Your task to perform on an android device: toggle airplane mode Image 0: 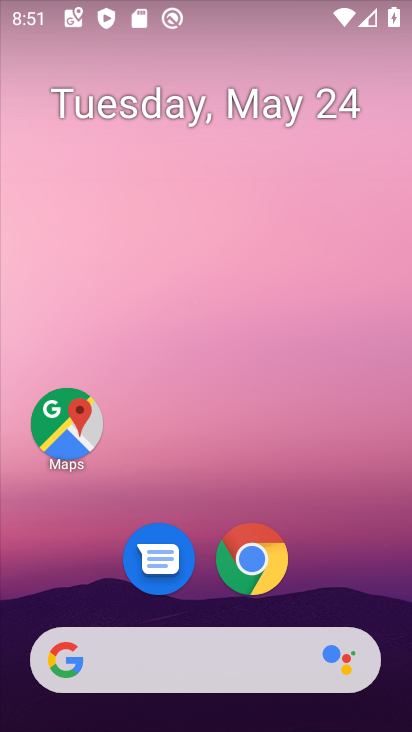
Step 0: drag from (227, 679) to (164, 126)
Your task to perform on an android device: toggle airplane mode Image 1: 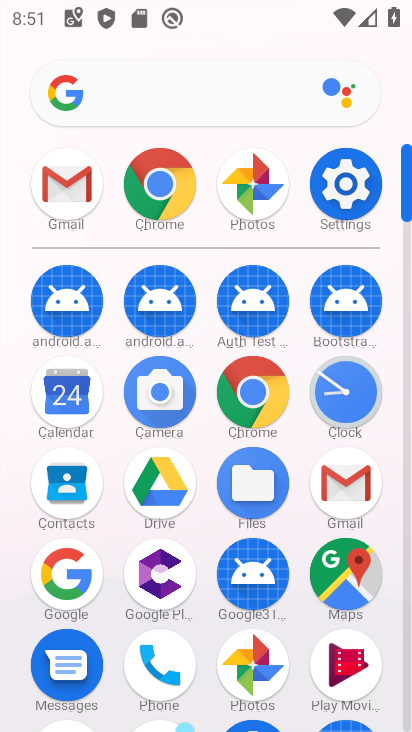
Step 1: click (346, 192)
Your task to perform on an android device: toggle airplane mode Image 2: 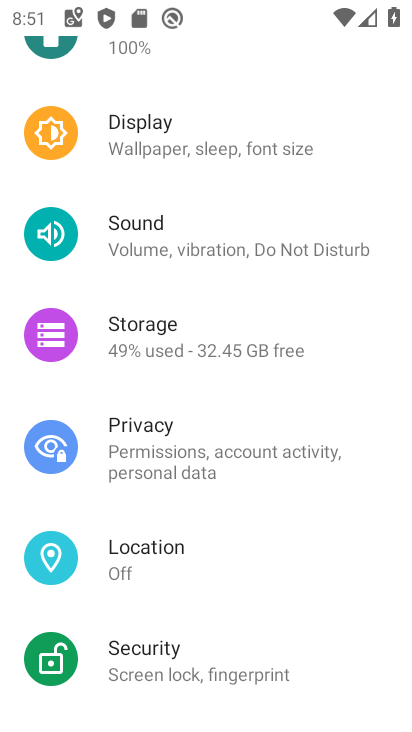
Step 2: drag from (216, 209) to (221, 645)
Your task to perform on an android device: toggle airplane mode Image 3: 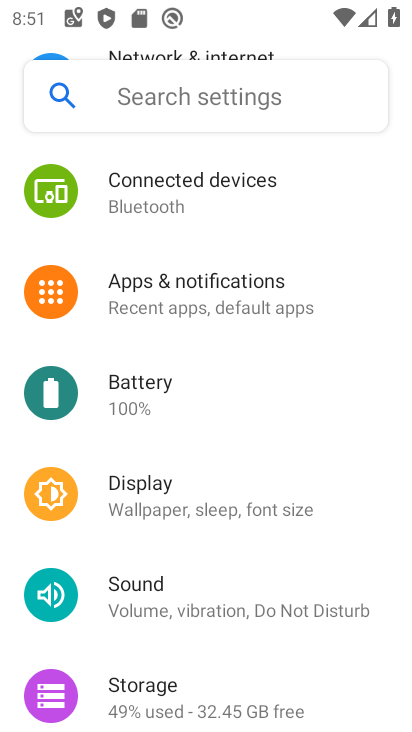
Step 3: drag from (160, 198) to (223, 685)
Your task to perform on an android device: toggle airplane mode Image 4: 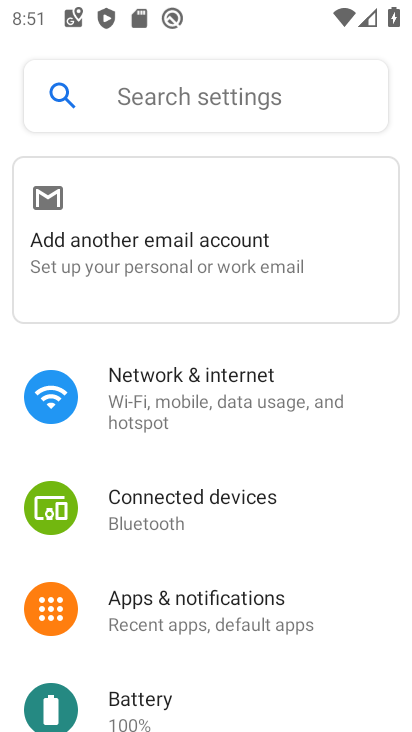
Step 4: click (201, 413)
Your task to perform on an android device: toggle airplane mode Image 5: 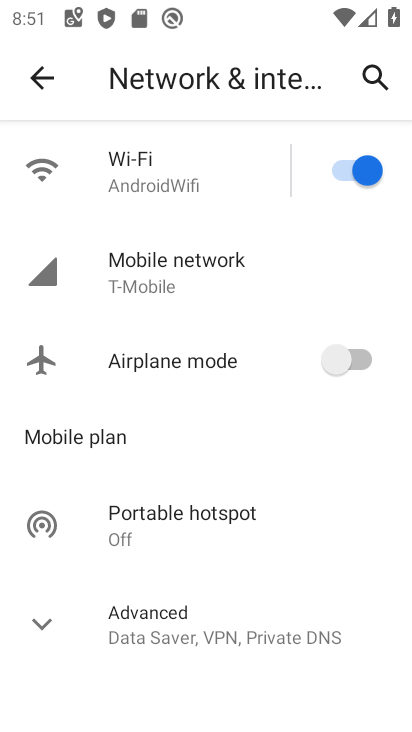
Step 5: click (352, 356)
Your task to perform on an android device: toggle airplane mode Image 6: 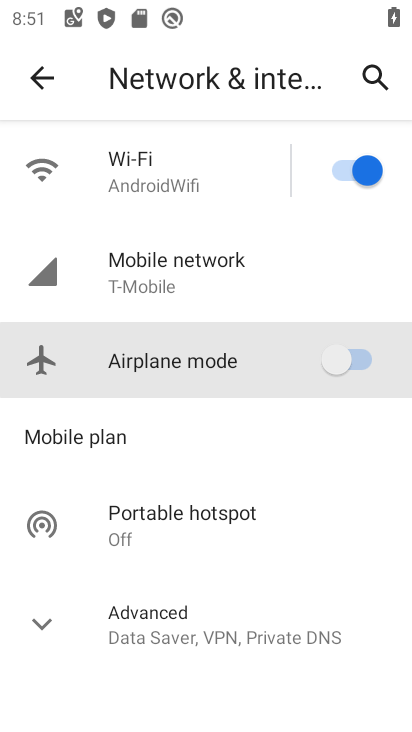
Step 6: click (352, 356)
Your task to perform on an android device: toggle airplane mode Image 7: 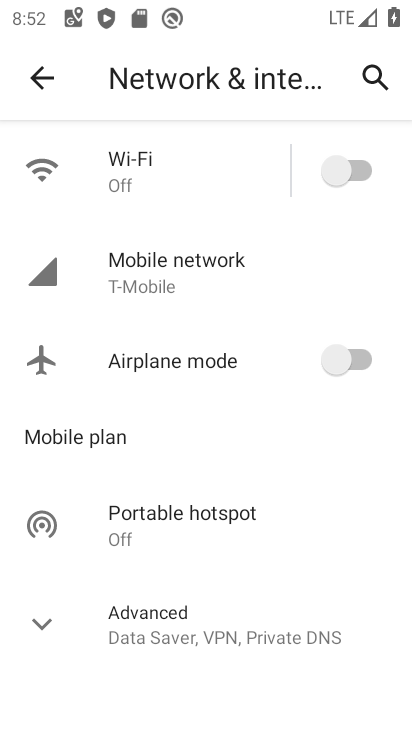
Step 7: click (340, 376)
Your task to perform on an android device: toggle airplane mode Image 8: 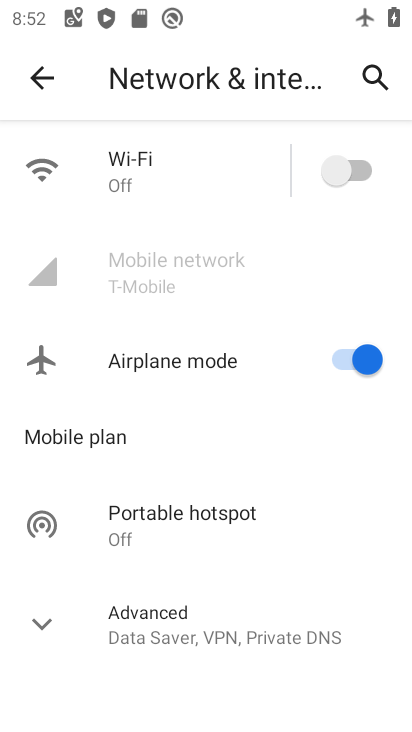
Step 8: task complete